Your task to perform on an android device: turn on sleep mode Image 0: 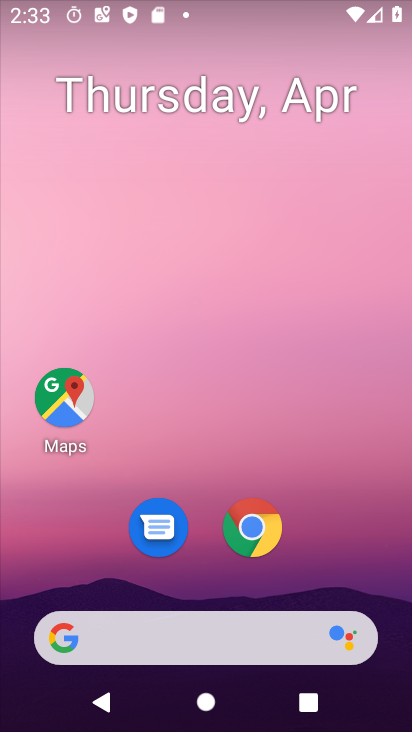
Step 0: drag from (341, 536) to (340, 0)
Your task to perform on an android device: turn on sleep mode Image 1: 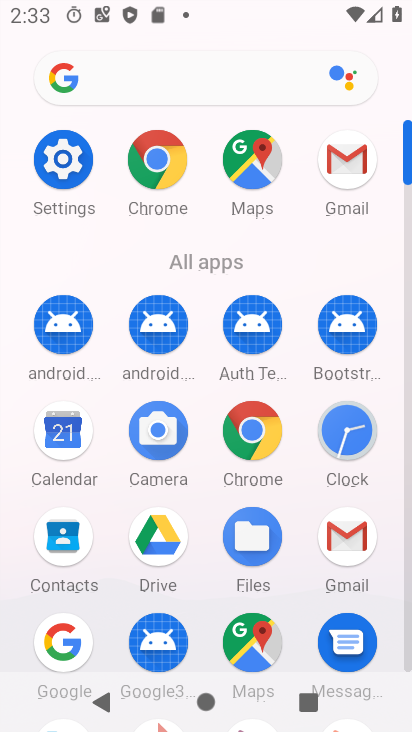
Step 1: drag from (218, 519) to (247, 180)
Your task to perform on an android device: turn on sleep mode Image 2: 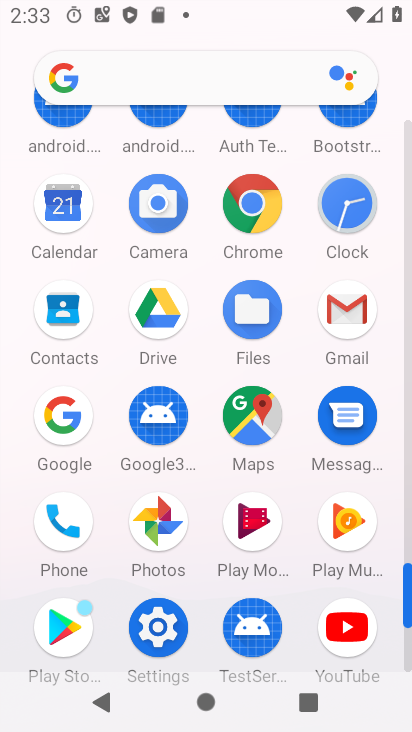
Step 2: click (164, 636)
Your task to perform on an android device: turn on sleep mode Image 3: 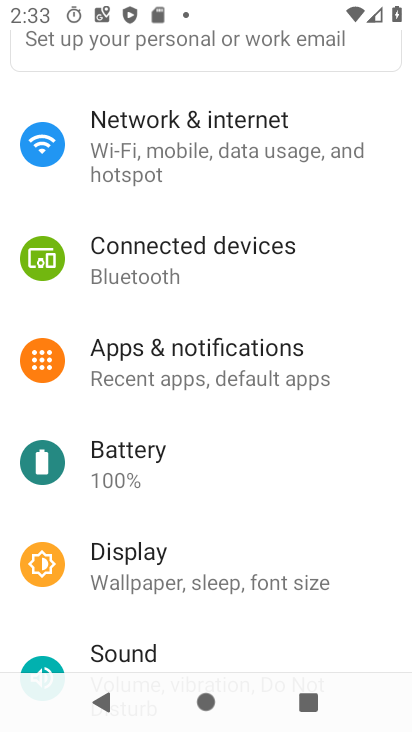
Step 3: click (145, 561)
Your task to perform on an android device: turn on sleep mode Image 4: 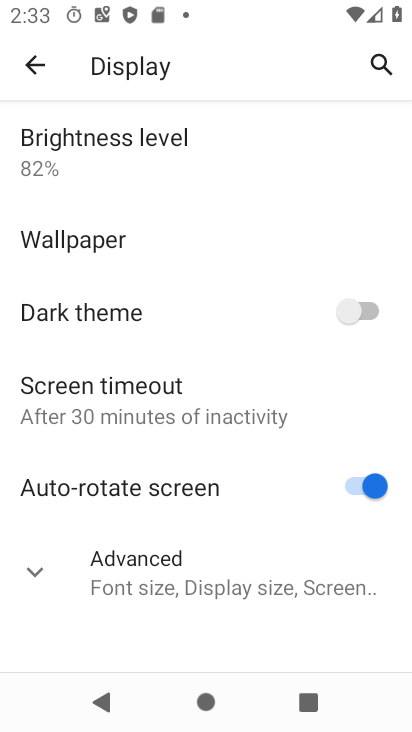
Step 4: task complete